Your task to perform on an android device: Open Google Maps Image 0: 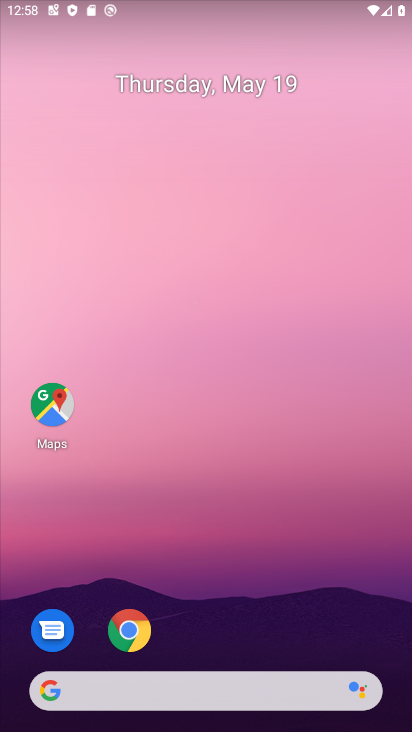
Step 0: click (60, 409)
Your task to perform on an android device: Open Google Maps Image 1: 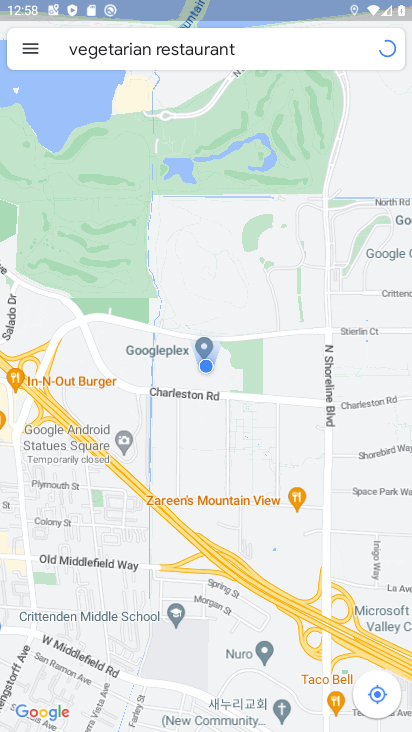
Step 1: task complete